Your task to perform on an android device: Do I have any events today? Image 0: 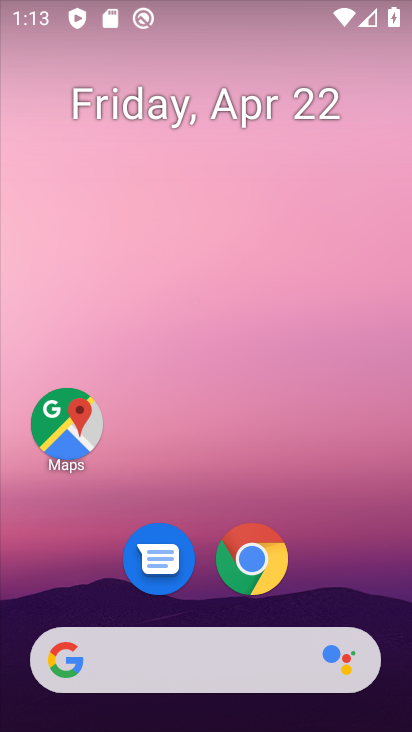
Step 0: drag from (205, 527) to (235, 225)
Your task to perform on an android device: Do I have any events today? Image 1: 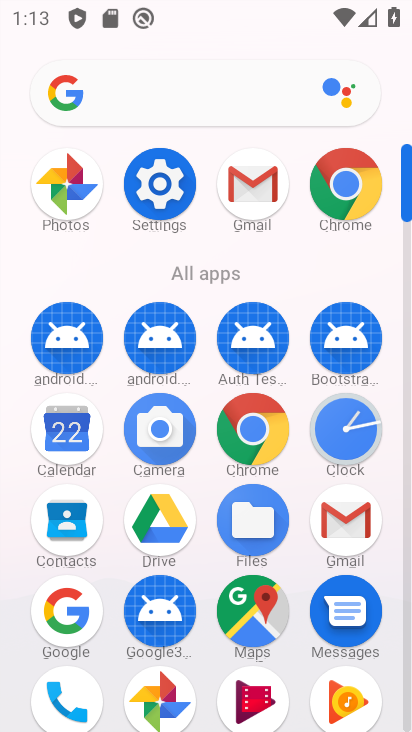
Step 1: click (71, 445)
Your task to perform on an android device: Do I have any events today? Image 2: 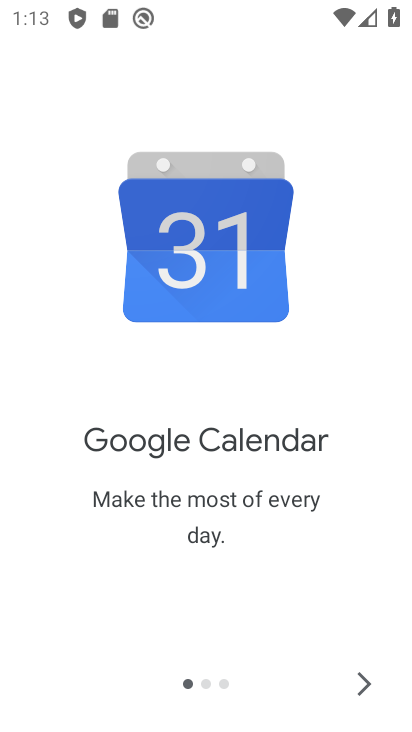
Step 2: click (357, 680)
Your task to perform on an android device: Do I have any events today? Image 3: 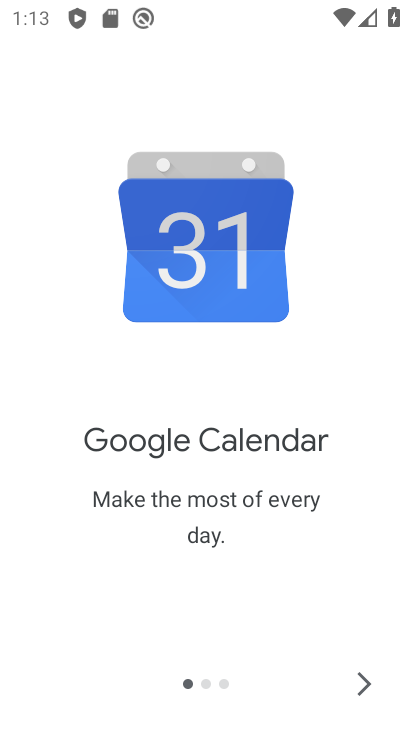
Step 3: click (357, 680)
Your task to perform on an android device: Do I have any events today? Image 4: 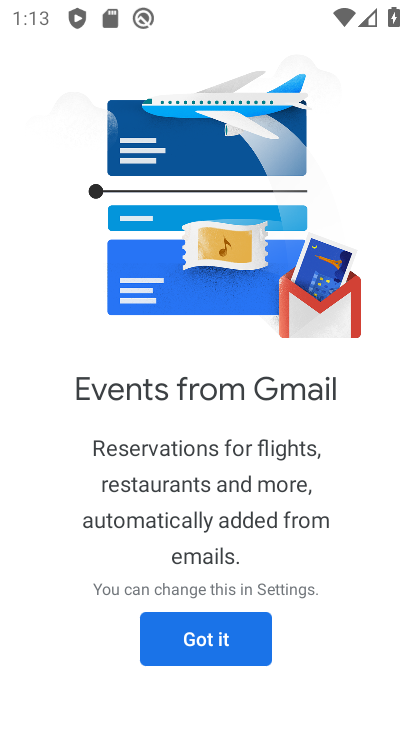
Step 4: click (357, 680)
Your task to perform on an android device: Do I have any events today? Image 5: 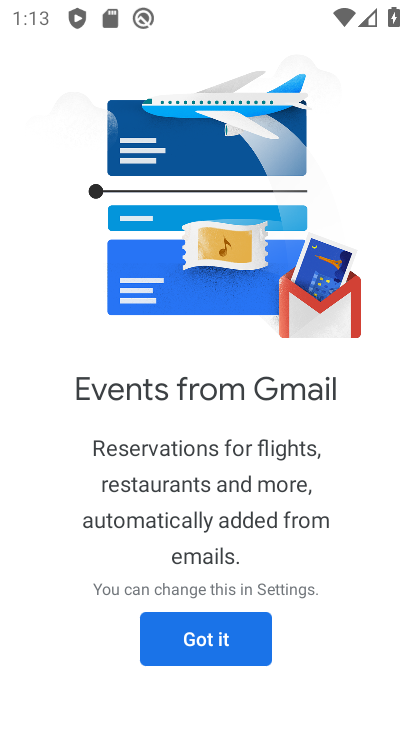
Step 5: click (223, 624)
Your task to perform on an android device: Do I have any events today? Image 6: 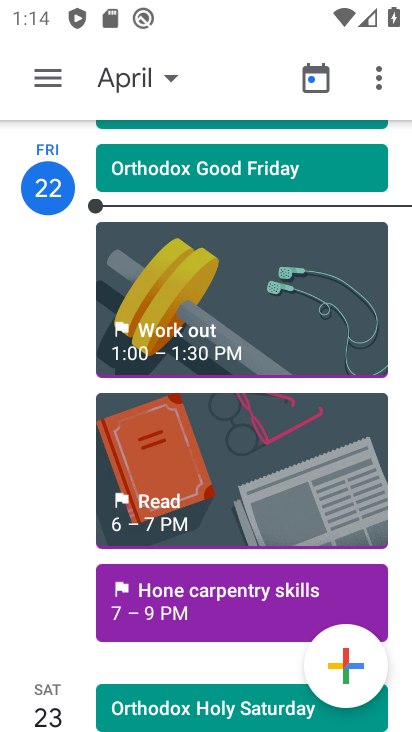
Step 6: click (49, 80)
Your task to perform on an android device: Do I have any events today? Image 7: 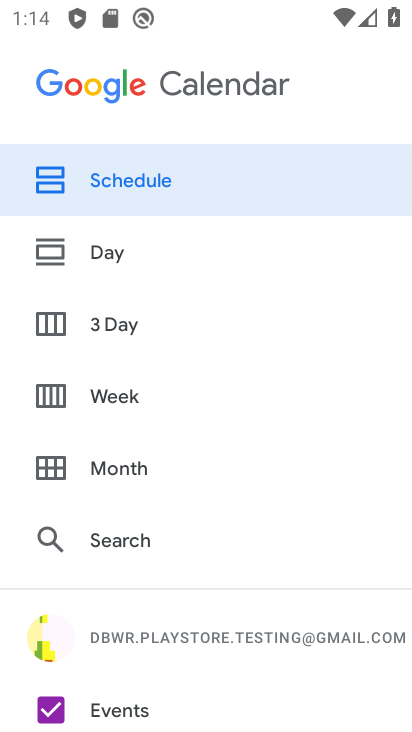
Step 7: drag from (193, 639) to (215, 345)
Your task to perform on an android device: Do I have any events today? Image 8: 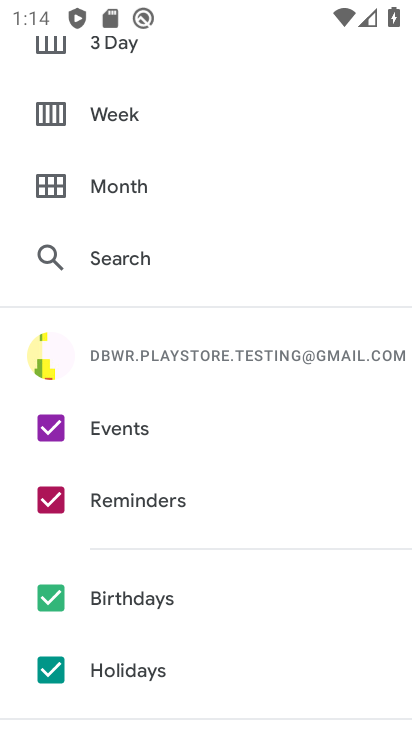
Step 8: click (50, 676)
Your task to perform on an android device: Do I have any events today? Image 9: 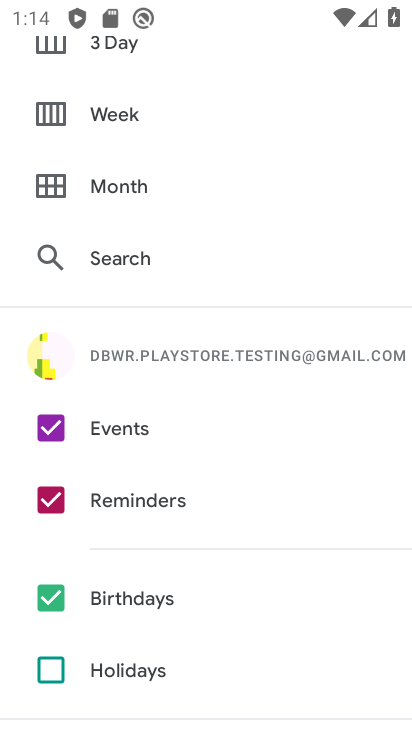
Step 9: click (51, 605)
Your task to perform on an android device: Do I have any events today? Image 10: 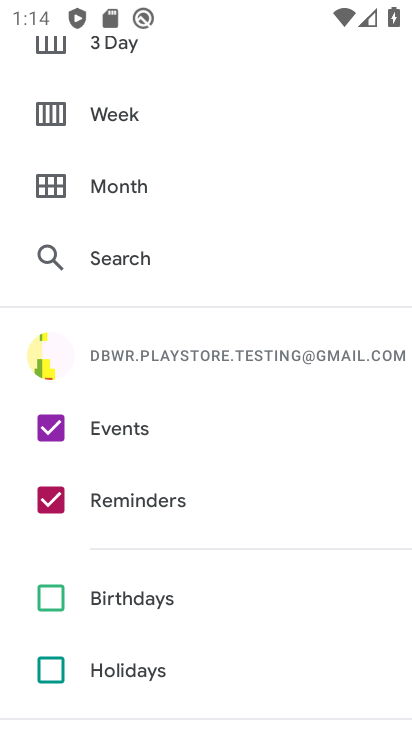
Step 10: click (51, 501)
Your task to perform on an android device: Do I have any events today? Image 11: 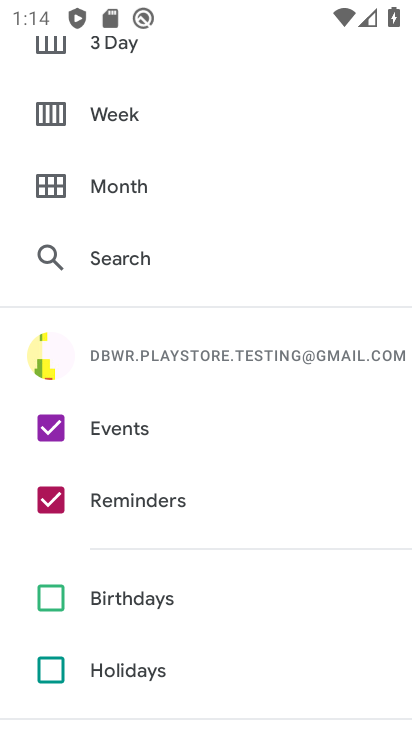
Step 11: click (47, 503)
Your task to perform on an android device: Do I have any events today? Image 12: 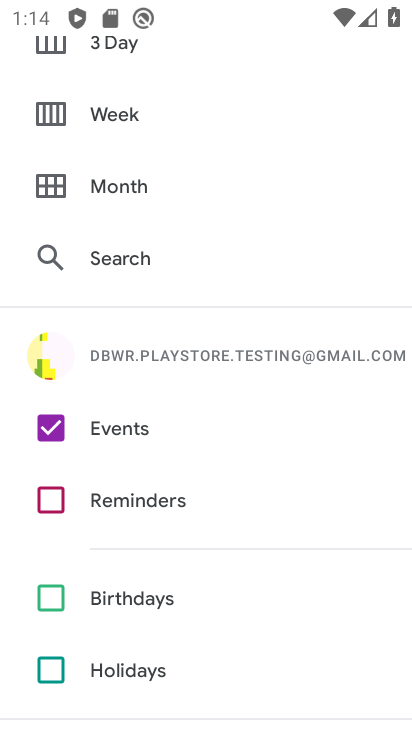
Step 12: task complete